Your task to perform on an android device: empty trash in google photos Image 0: 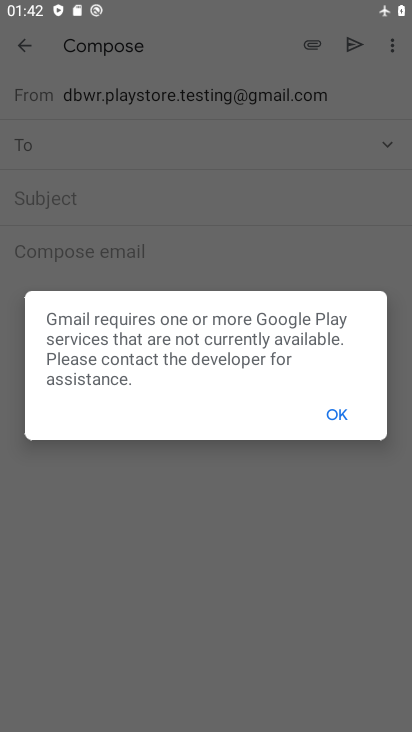
Step 0: press home button
Your task to perform on an android device: empty trash in google photos Image 1: 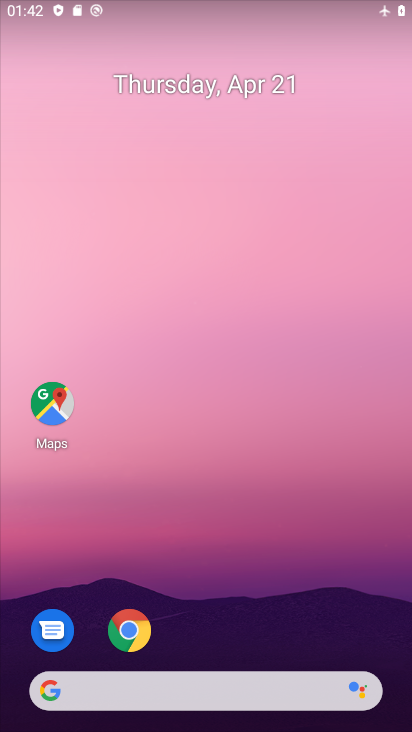
Step 1: drag from (257, 4) to (325, 508)
Your task to perform on an android device: empty trash in google photos Image 2: 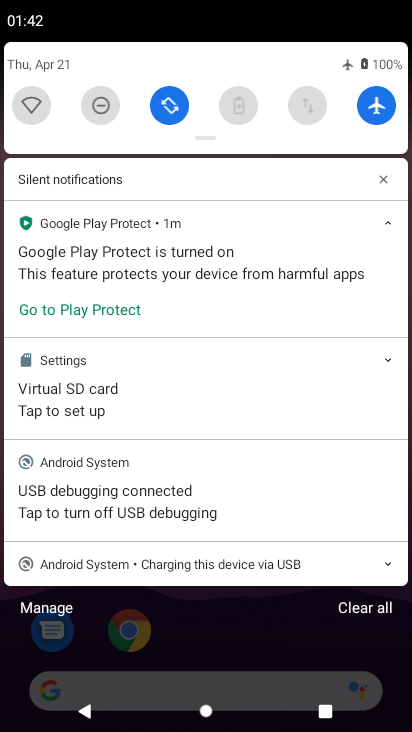
Step 2: click (370, 102)
Your task to perform on an android device: empty trash in google photos Image 3: 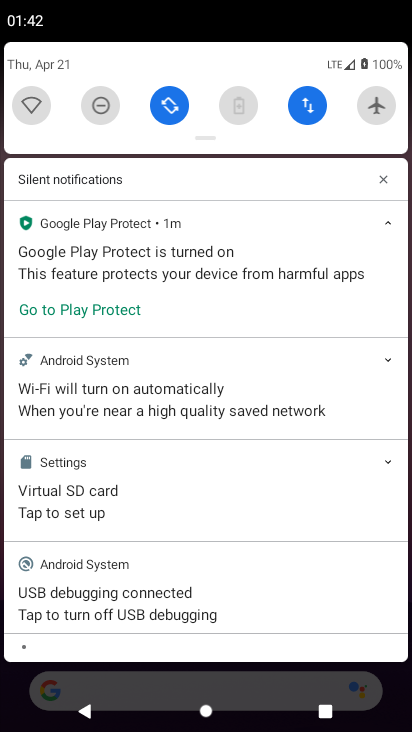
Step 3: drag from (309, 563) to (316, 430)
Your task to perform on an android device: empty trash in google photos Image 4: 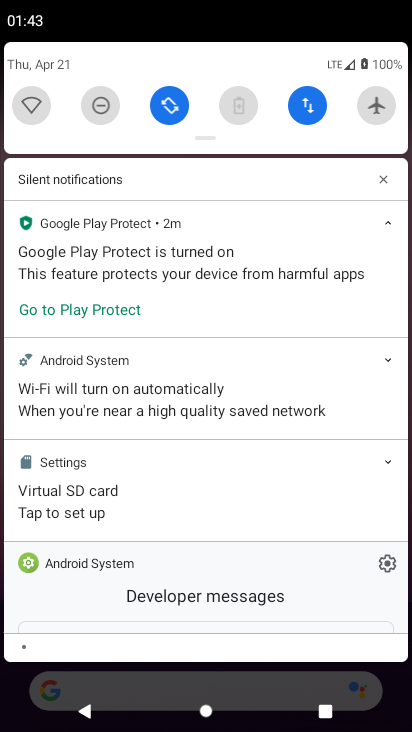
Step 4: click (387, 566)
Your task to perform on an android device: empty trash in google photos Image 5: 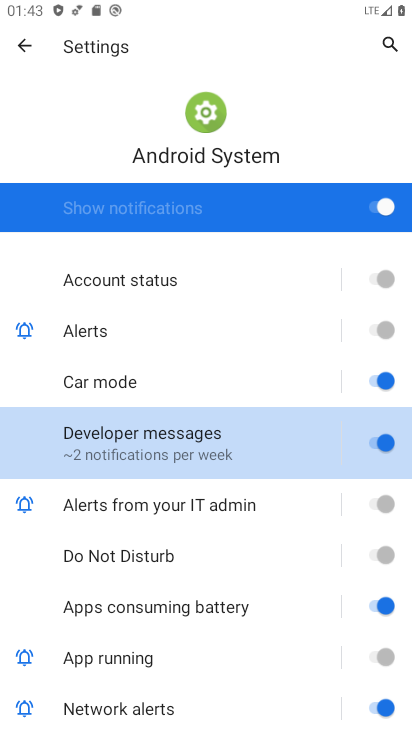
Step 5: press home button
Your task to perform on an android device: empty trash in google photos Image 6: 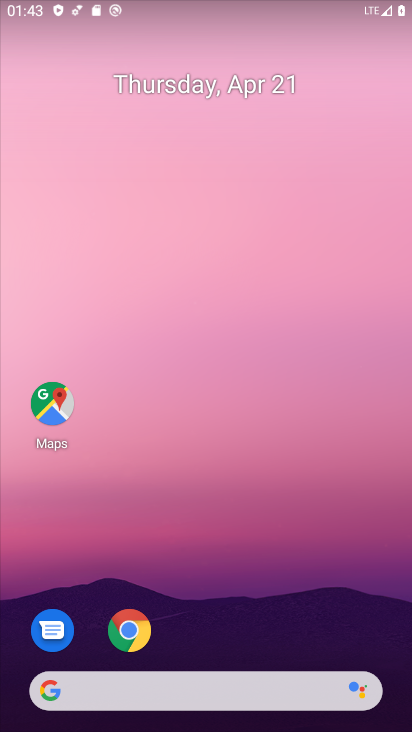
Step 6: drag from (219, 617) to (205, 78)
Your task to perform on an android device: empty trash in google photos Image 7: 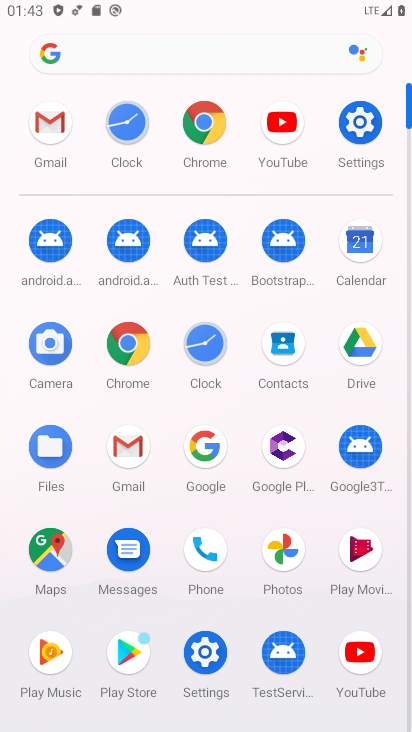
Step 7: click (292, 560)
Your task to perform on an android device: empty trash in google photos Image 8: 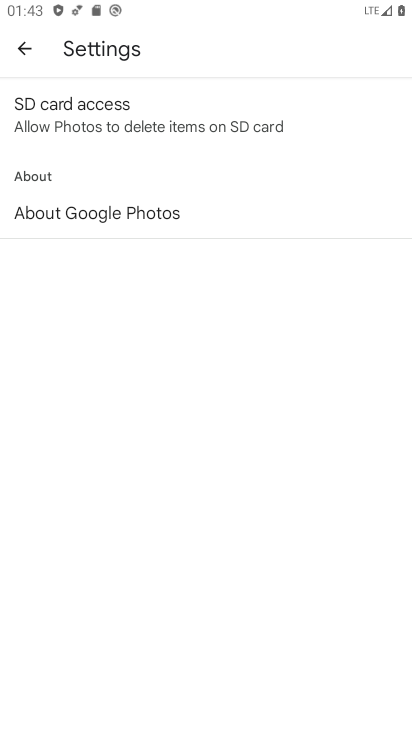
Step 8: press home button
Your task to perform on an android device: empty trash in google photos Image 9: 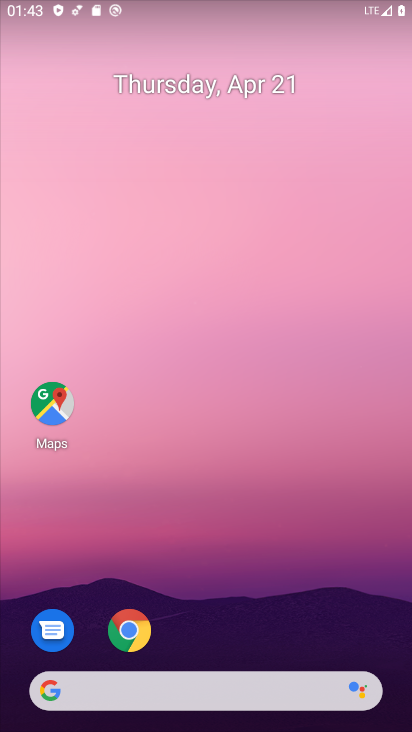
Step 9: drag from (255, 577) to (225, 9)
Your task to perform on an android device: empty trash in google photos Image 10: 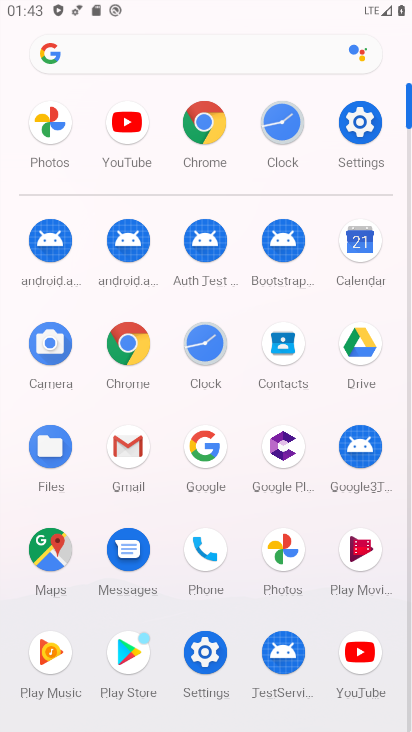
Step 10: click (268, 554)
Your task to perform on an android device: empty trash in google photos Image 11: 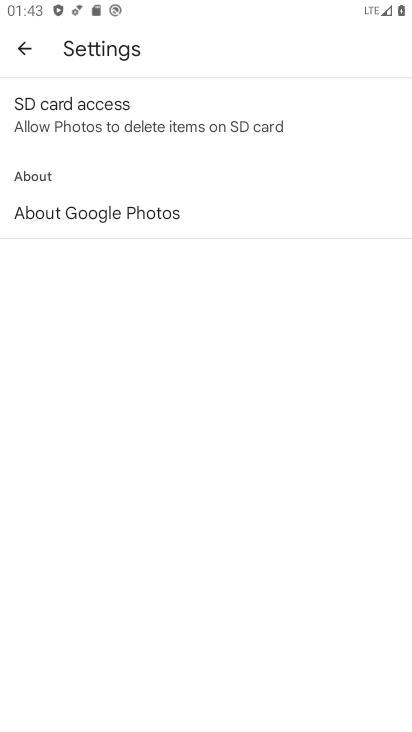
Step 11: click (25, 52)
Your task to perform on an android device: empty trash in google photos Image 12: 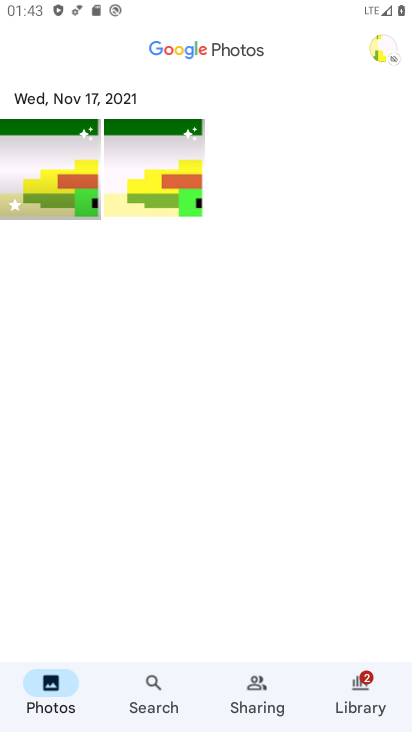
Step 12: task complete